Your task to perform on an android device: make emails show in primary in the gmail app Image 0: 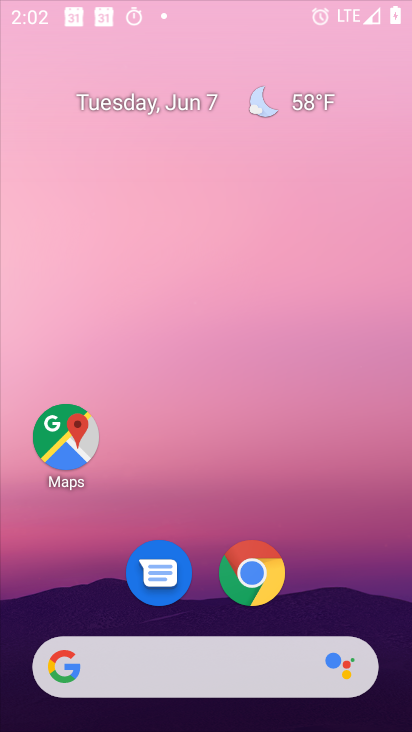
Step 0: drag from (308, 507) to (314, 83)
Your task to perform on an android device: make emails show in primary in the gmail app Image 1: 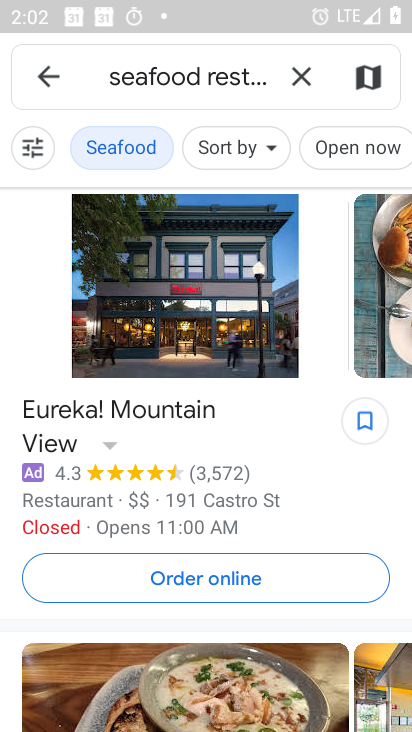
Step 1: press home button
Your task to perform on an android device: make emails show in primary in the gmail app Image 2: 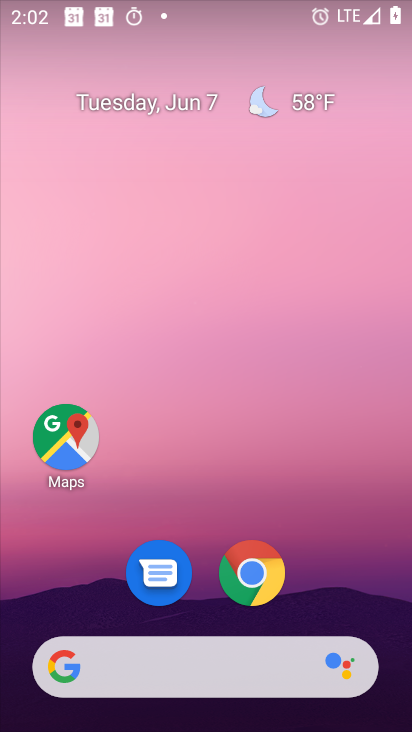
Step 2: drag from (327, 596) to (357, 173)
Your task to perform on an android device: make emails show in primary in the gmail app Image 3: 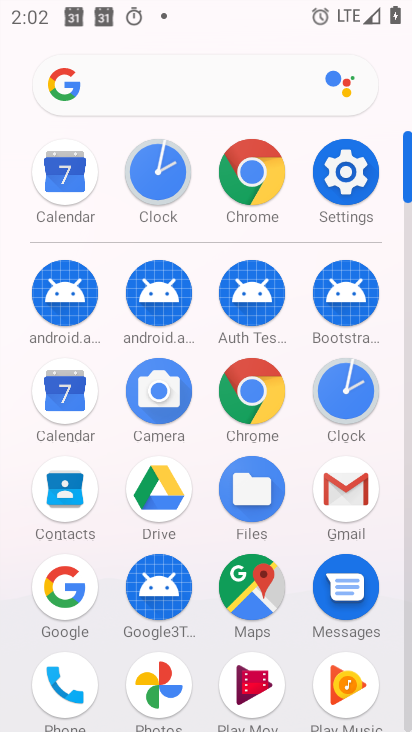
Step 3: click (334, 486)
Your task to perform on an android device: make emails show in primary in the gmail app Image 4: 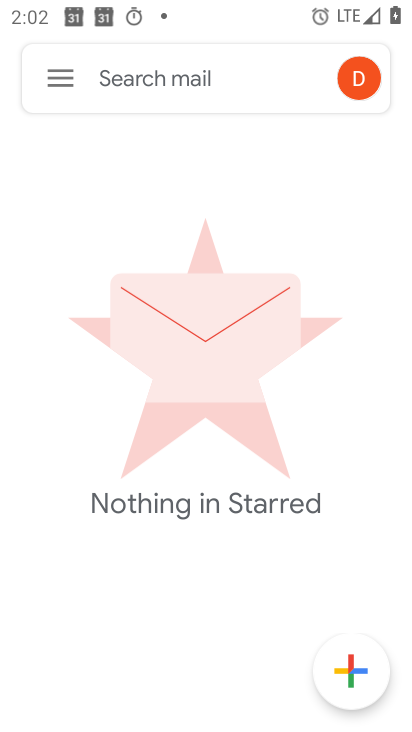
Step 4: click (59, 78)
Your task to perform on an android device: make emails show in primary in the gmail app Image 5: 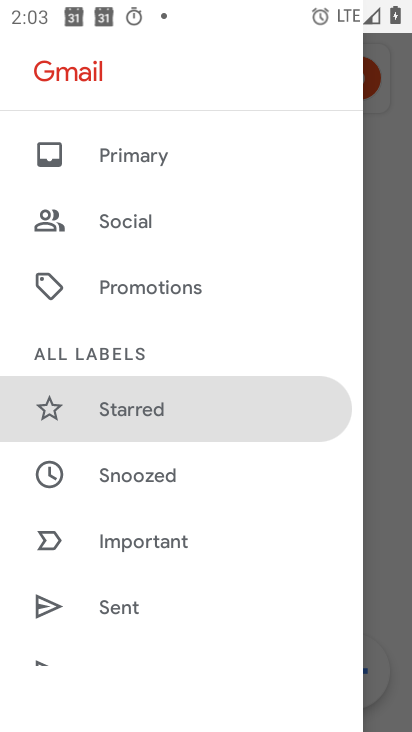
Step 5: drag from (194, 206) to (214, 624)
Your task to perform on an android device: make emails show in primary in the gmail app Image 6: 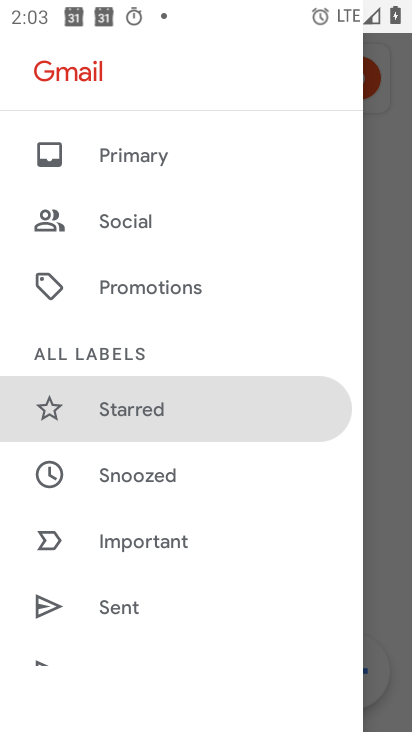
Step 6: click (138, 158)
Your task to perform on an android device: make emails show in primary in the gmail app Image 7: 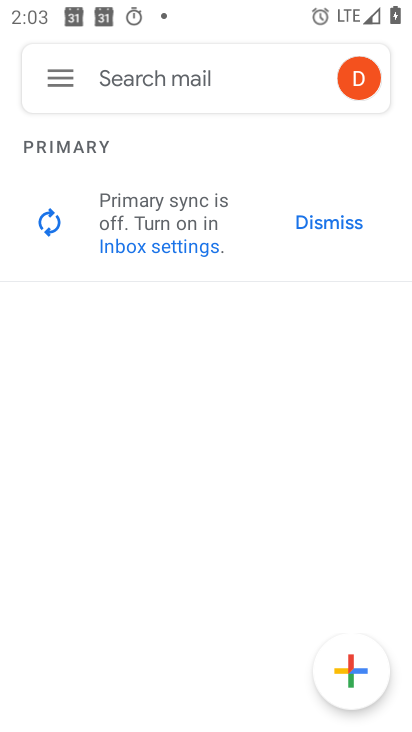
Step 7: task complete